Your task to perform on an android device: change text size in settings app Image 0: 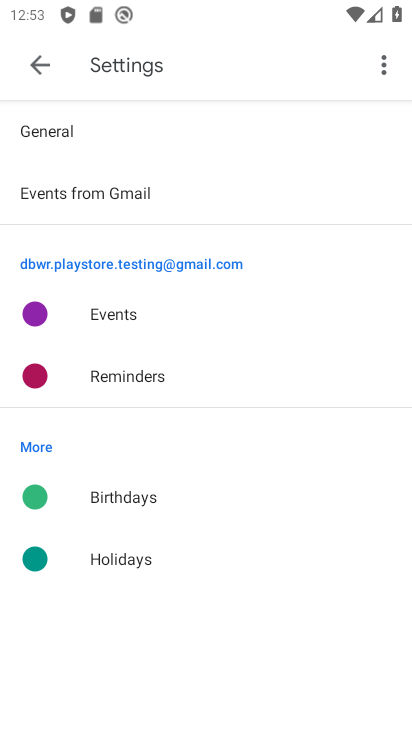
Step 0: press home button
Your task to perform on an android device: change text size in settings app Image 1: 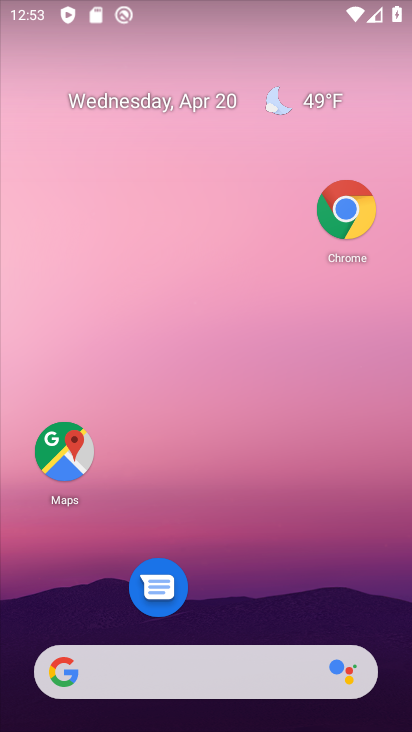
Step 1: drag from (258, 618) to (298, 5)
Your task to perform on an android device: change text size in settings app Image 2: 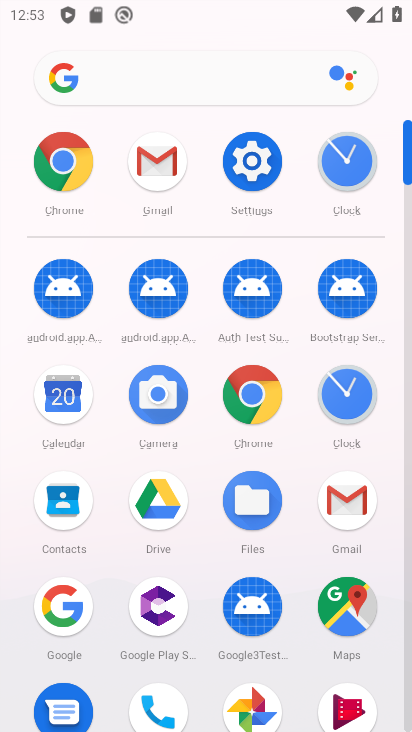
Step 2: click (254, 168)
Your task to perform on an android device: change text size in settings app Image 3: 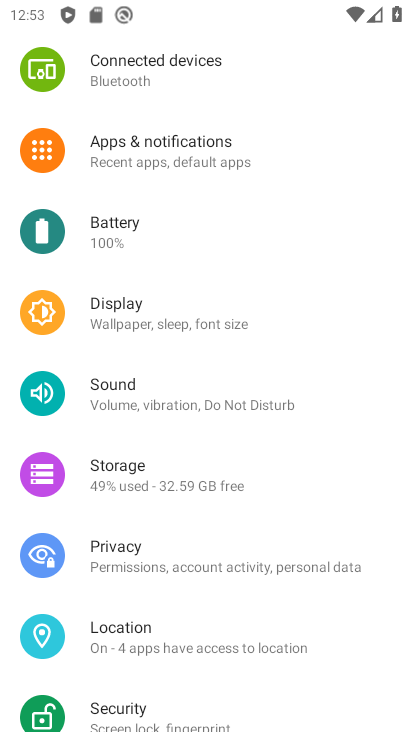
Step 3: click (150, 318)
Your task to perform on an android device: change text size in settings app Image 4: 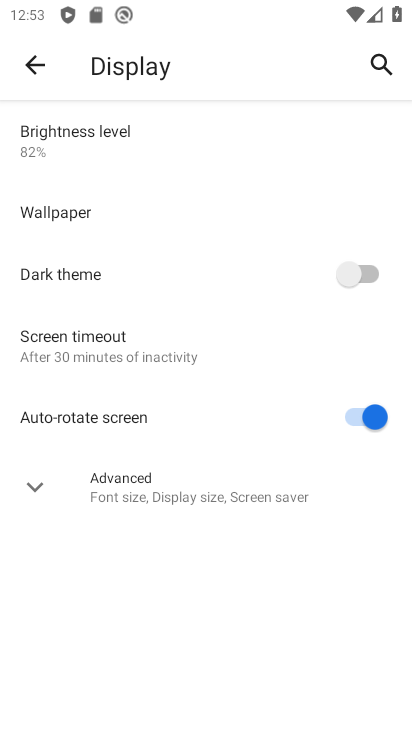
Step 4: click (161, 493)
Your task to perform on an android device: change text size in settings app Image 5: 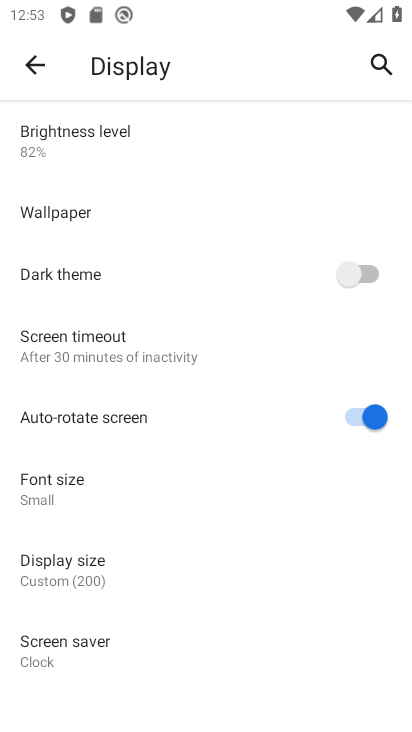
Step 5: click (52, 489)
Your task to perform on an android device: change text size in settings app Image 6: 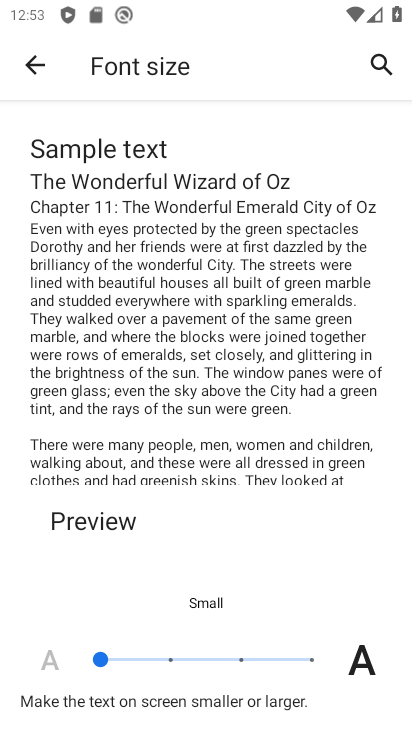
Step 6: click (237, 659)
Your task to perform on an android device: change text size in settings app Image 7: 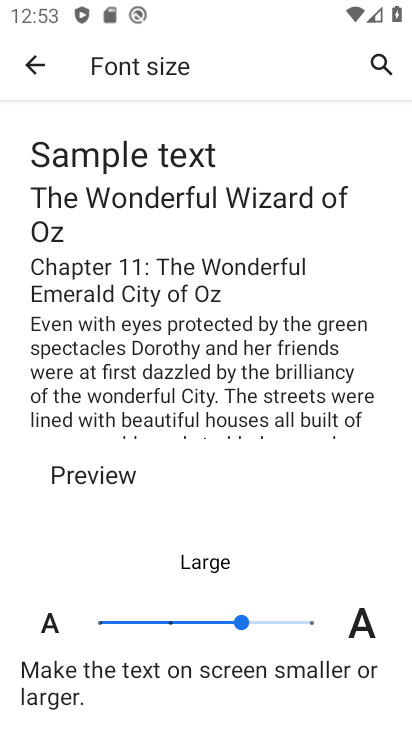
Step 7: task complete